Your task to perform on an android device: Open network settings Image 0: 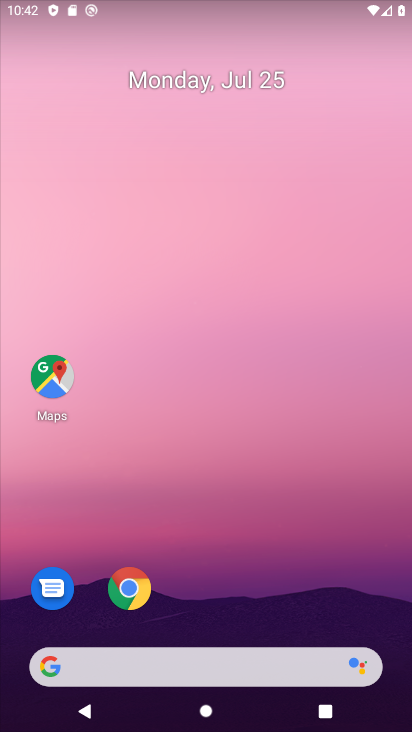
Step 0: drag from (246, 544) to (235, 70)
Your task to perform on an android device: Open network settings Image 1: 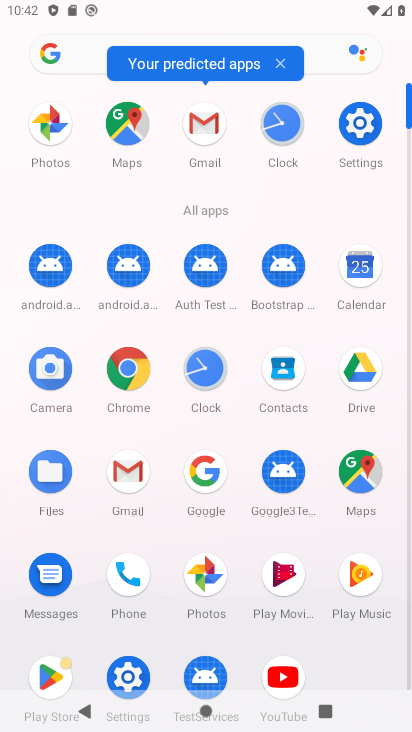
Step 1: click (355, 137)
Your task to perform on an android device: Open network settings Image 2: 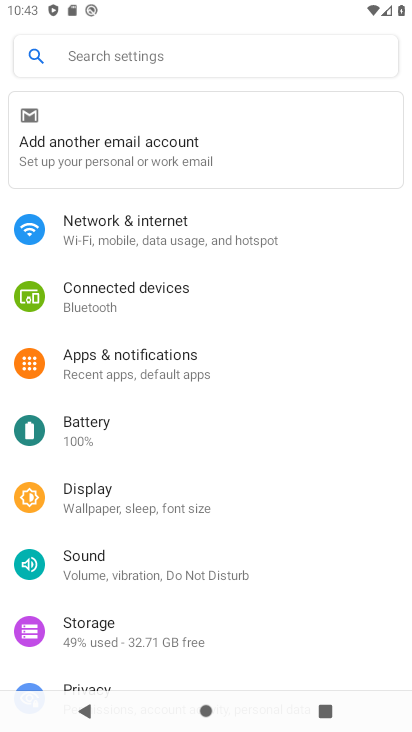
Step 2: click (141, 220)
Your task to perform on an android device: Open network settings Image 3: 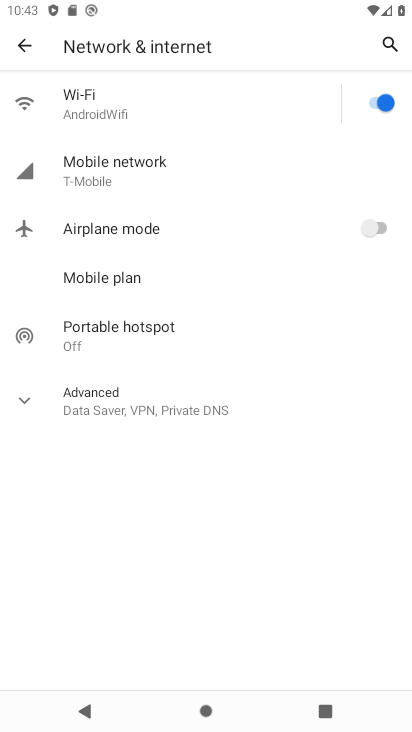
Step 3: task complete